Your task to perform on an android device: Open Chrome and go to the settings page Image 0: 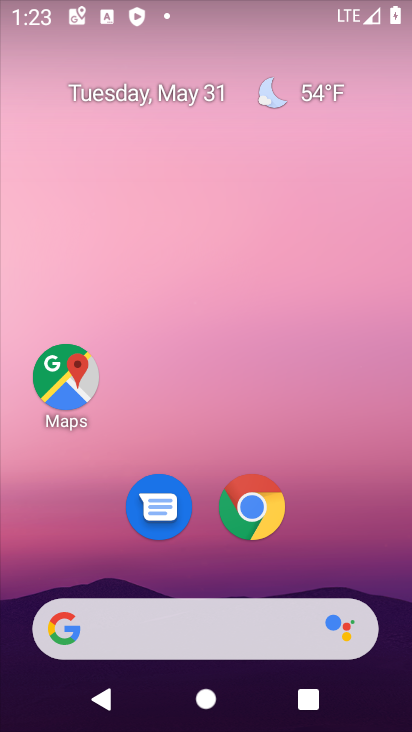
Step 0: drag from (409, 621) to (253, 81)
Your task to perform on an android device: Open Chrome and go to the settings page Image 1: 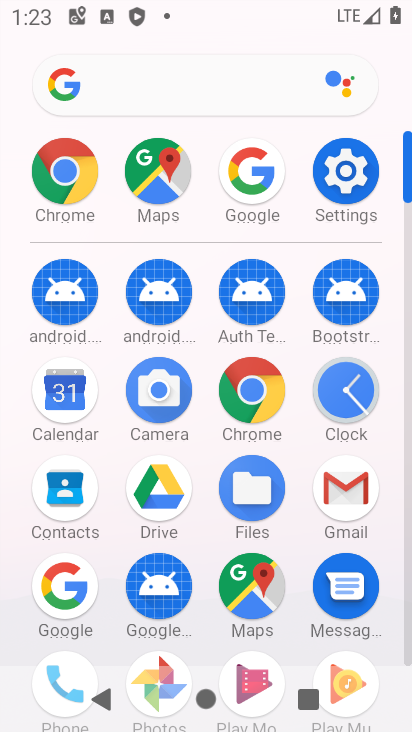
Step 1: click (243, 367)
Your task to perform on an android device: Open Chrome and go to the settings page Image 2: 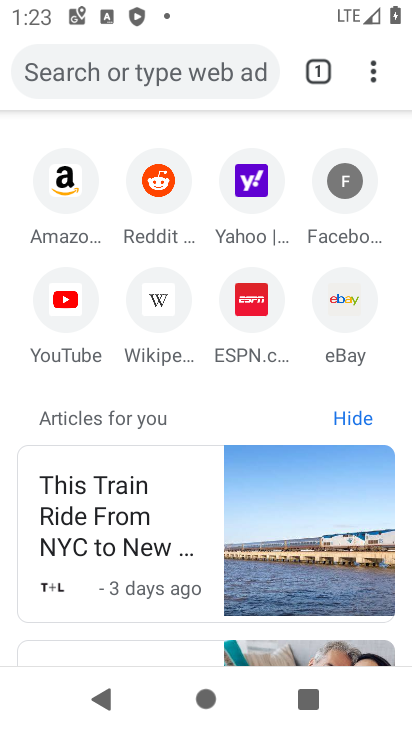
Step 2: click (373, 68)
Your task to perform on an android device: Open Chrome and go to the settings page Image 3: 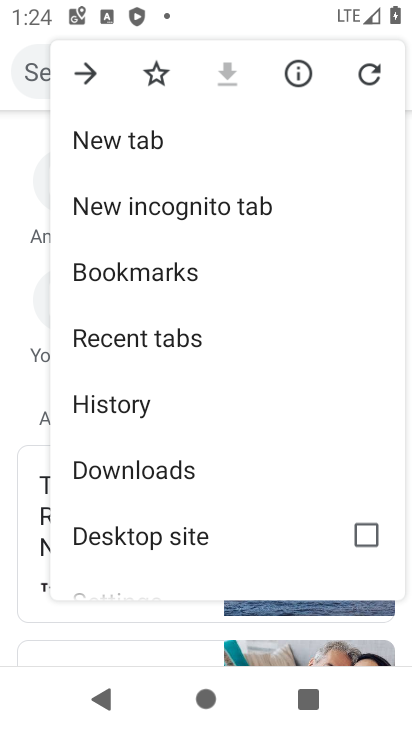
Step 3: drag from (164, 519) to (256, 130)
Your task to perform on an android device: Open Chrome and go to the settings page Image 4: 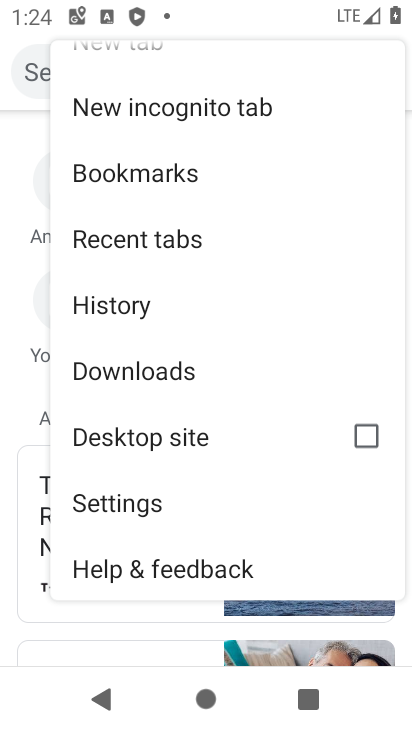
Step 4: click (159, 511)
Your task to perform on an android device: Open Chrome and go to the settings page Image 5: 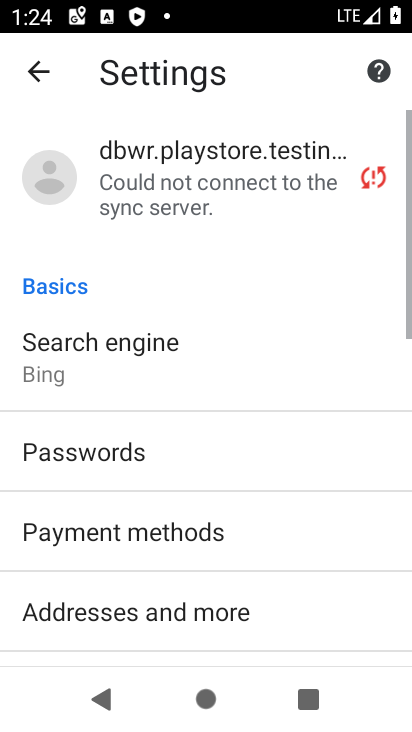
Step 5: task complete